Your task to perform on an android device: Open Yahoo.com Image 0: 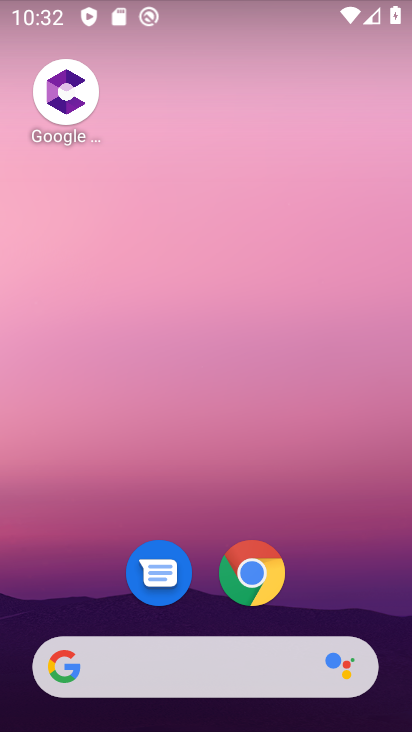
Step 0: click (269, 573)
Your task to perform on an android device: Open Yahoo.com Image 1: 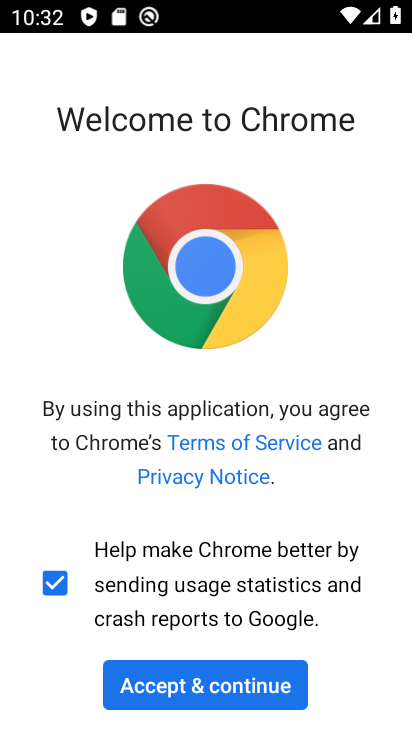
Step 1: click (219, 695)
Your task to perform on an android device: Open Yahoo.com Image 2: 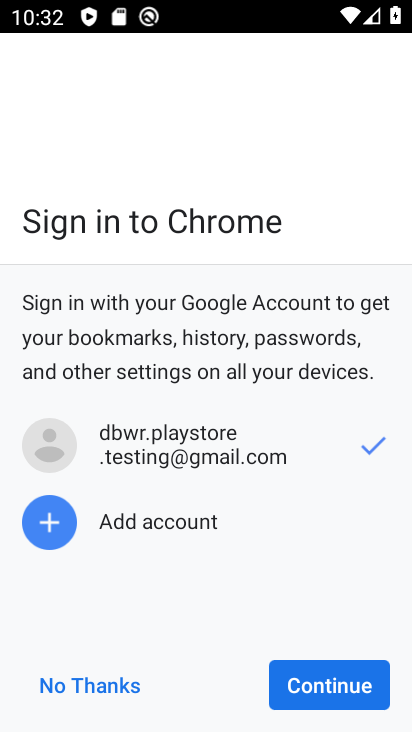
Step 2: click (365, 693)
Your task to perform on an android device: Open Yahoo.com Image 3: 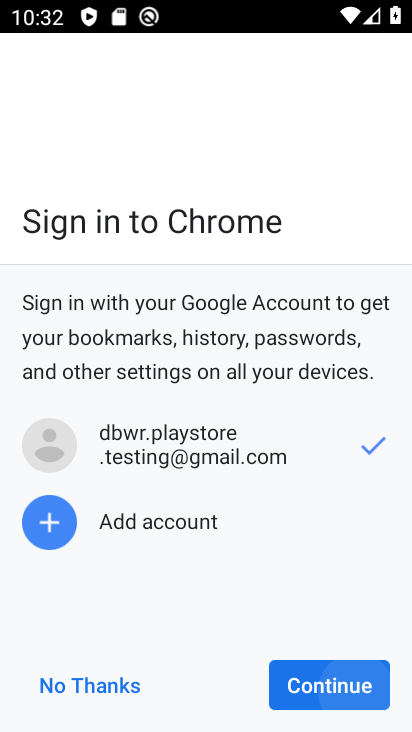
Step 3: click (365, 693)
Your task to perform on an android device: Open Yahoo.com Image 4: 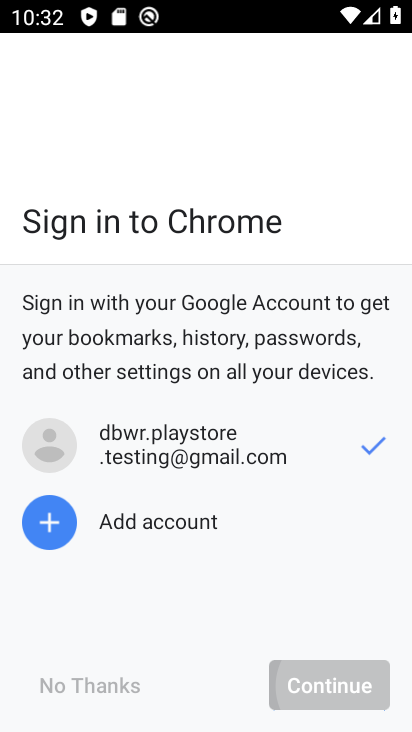
Step 4: click (365, 693)
Your task to perform on an android device: Open Yahoo.com Image 5: 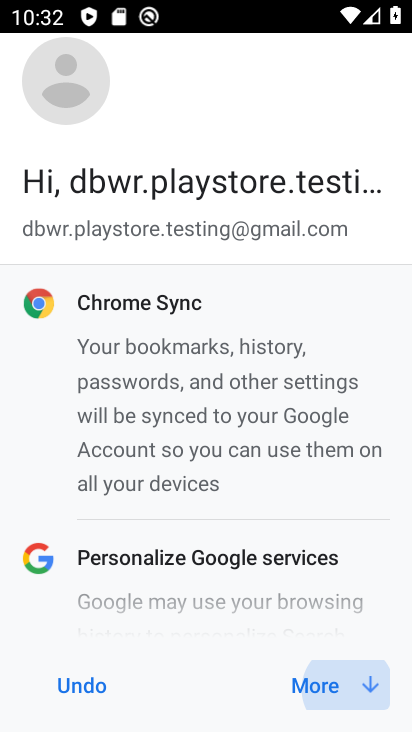
Step 5: click (363, 693)
Your task to perform on an android device: Open Yahoo.com Image 6: 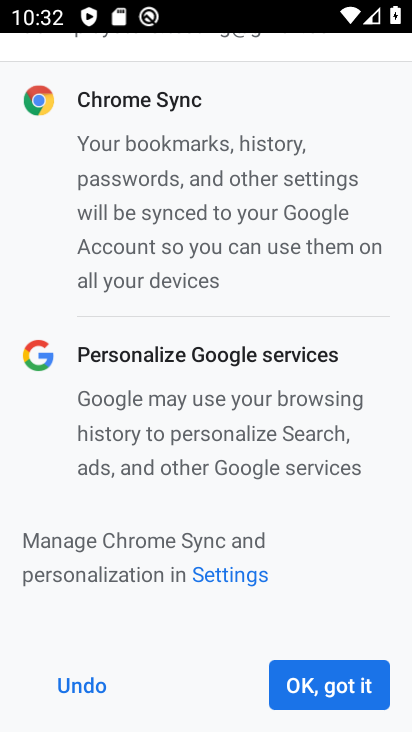
Step 6: click (363, 693)
Your task to perform on an android device: Open Yahoo.com Image 7: 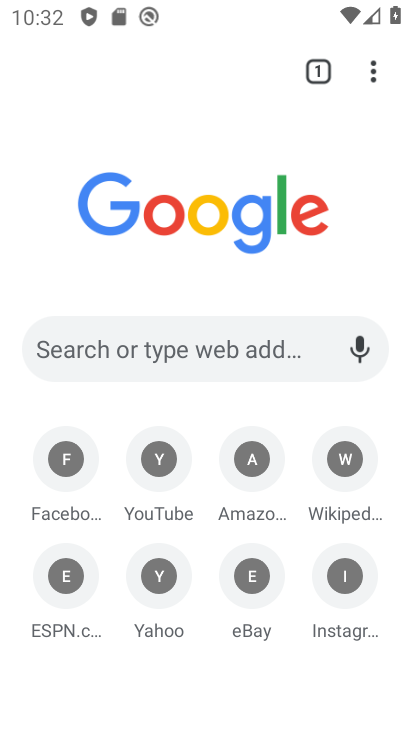
Step 7: click (205, 74)
Your task to perform on an android device: Open Yahoo.com Image 8: 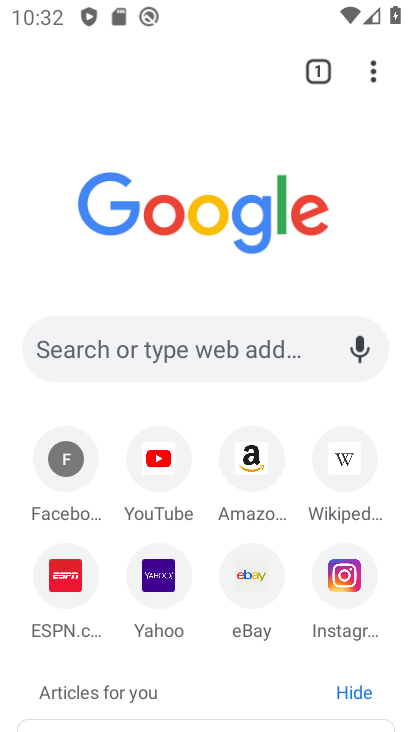
Step 8: click (216, 355)
Your task to perform on an android device: Open Yahoo.com Image 9: 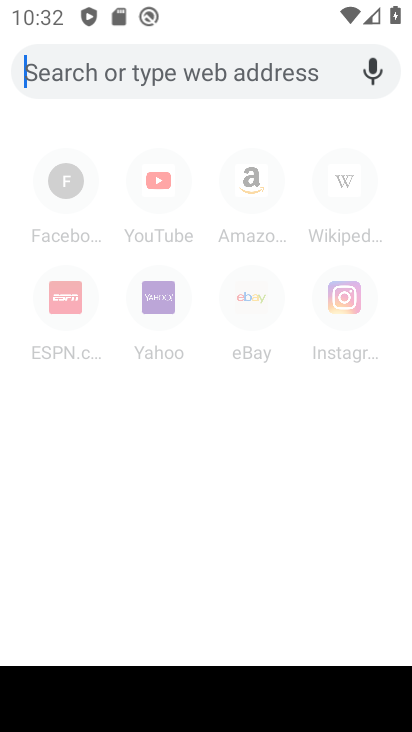
Step 9: type "Yahoo.com"
Your task to perform on an android device: Open Yahoo.com Image 10: 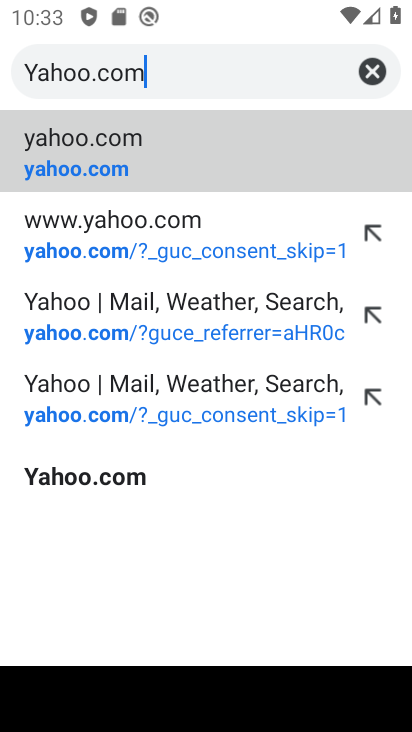
Step 10: click (123, 162)
Your task to perform on an android device: Open Yahoo.com Image 11: 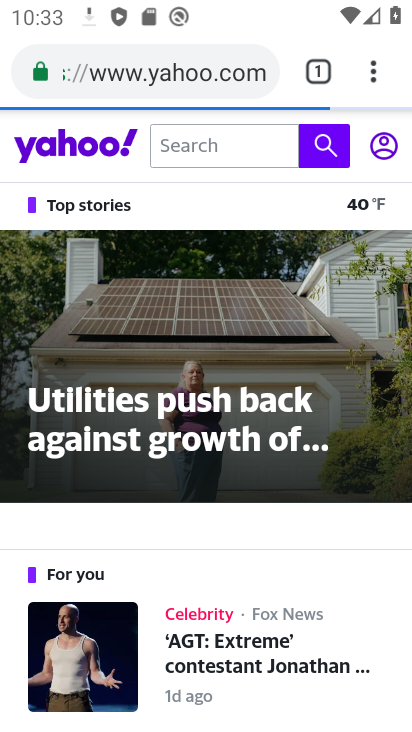
Step 11: task complete